Your task to perform on an android device: Go to Google maps Image 0: 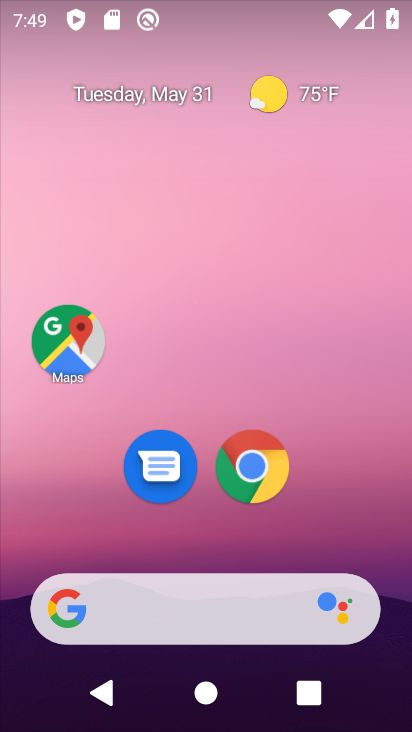
Step 0: click (255, 477)
Your task to perform on an android device: Go to Google maps Image 1: 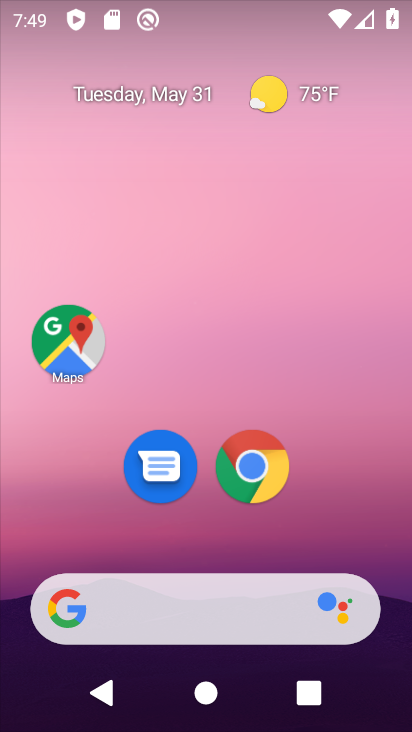
Step 1: click (256, 466)
Your task to perform on an android device: Go to Google maps Image 2: 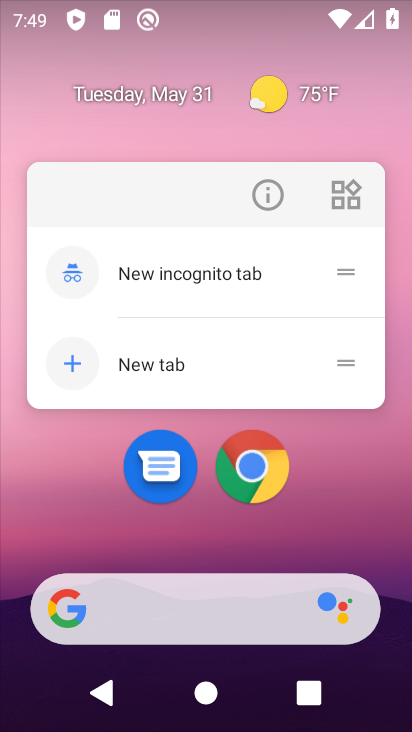
Step 2: click (153, 515)
Your task to perform on an android device: Go to Google maps Image 3: 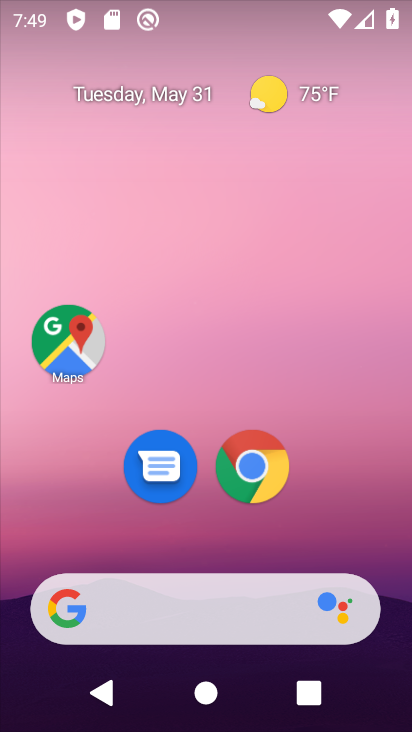
Step 3: click (85, 335)
Your task to perform on an android device: Go to Google maps Image 4: 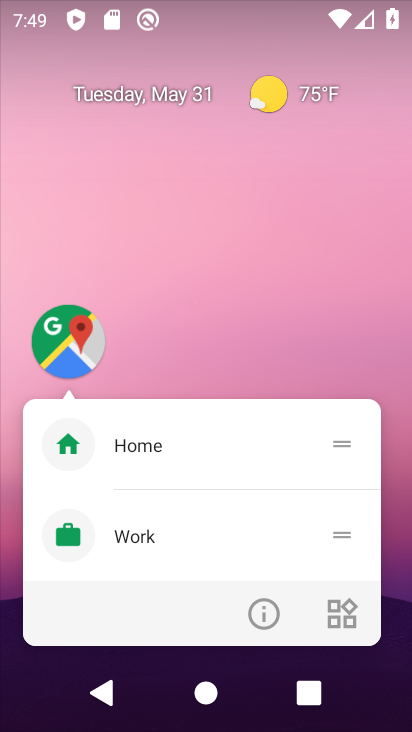
Step 4: click (275, 635)
Your task to perform on an android device: Go to Google maps Image 5: 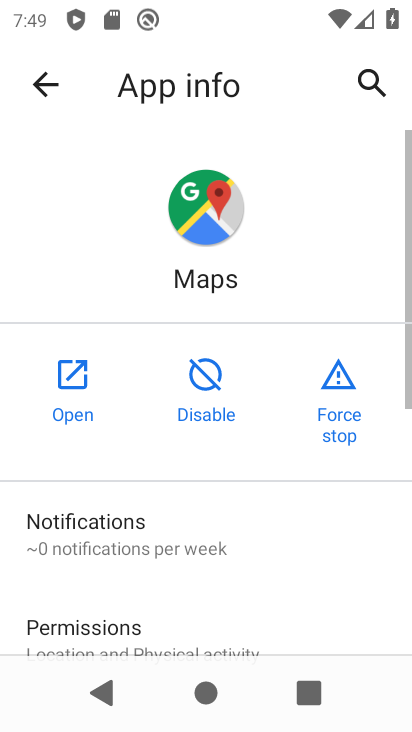
Step 5: click (78, 391)
Your task to perform on an android device: Go to Google maps Image 6: 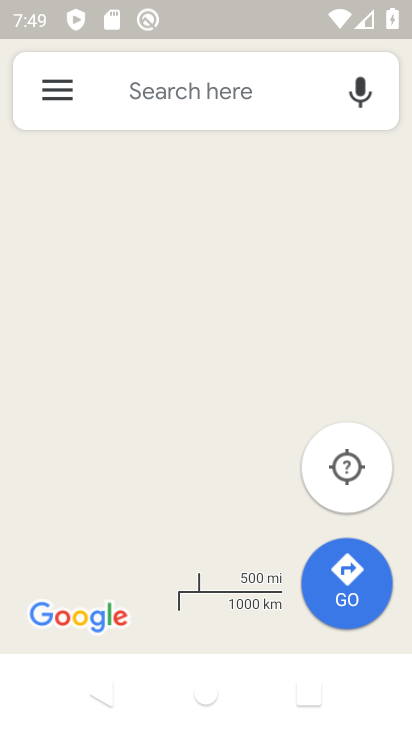
Step 6: task complete